Your task to perform on an android device: Turn off the flashlight Image 0: 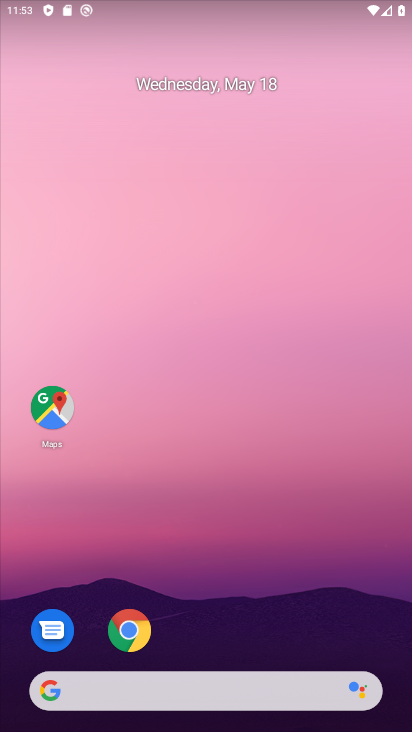
Step 0: drag from (195, 647) to (224, 239)
Your task to perform on an android device: Turn off the flashlight Image 1: 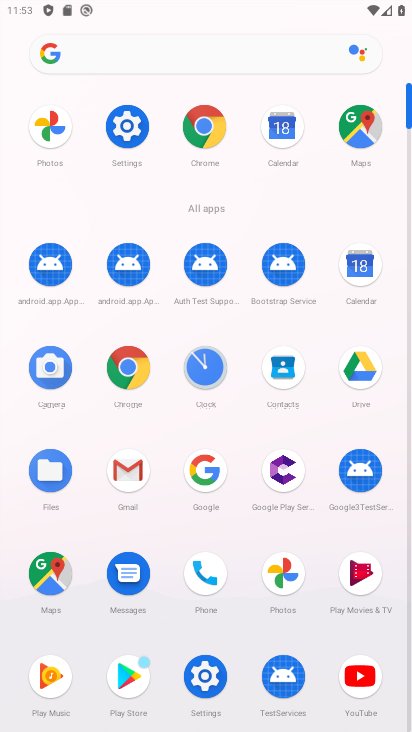
Step 1: click (128, 128)
Your task to perform on an android device: Turn off the flashlight Image 2: 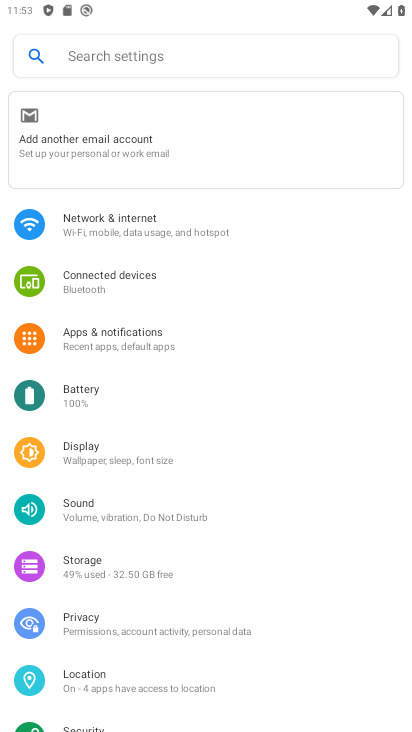
Step 2: click (117, 58)
Your task to perform on an android device: Turn off the flashlight Image 3: 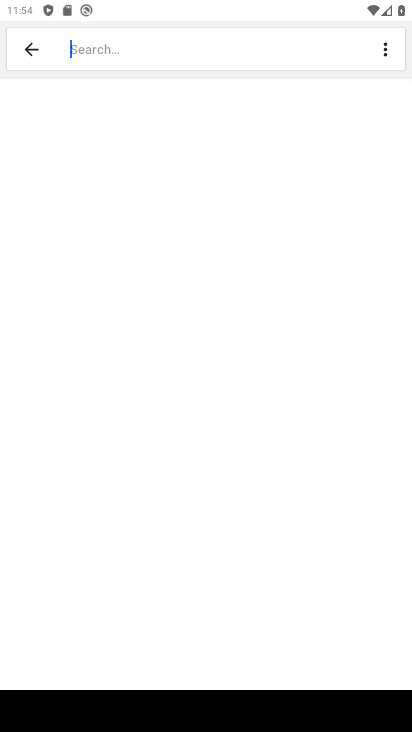
Step 3: type "flashlight"
Your task to perform on an android device: Turn off the flashlight Image 4: 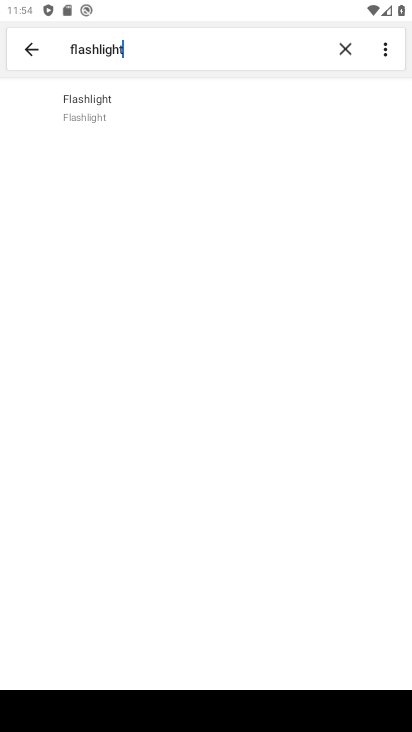
Step 4: click (135, 124)
Your task to perform on an android device: Turn off the flashlight Image 5: 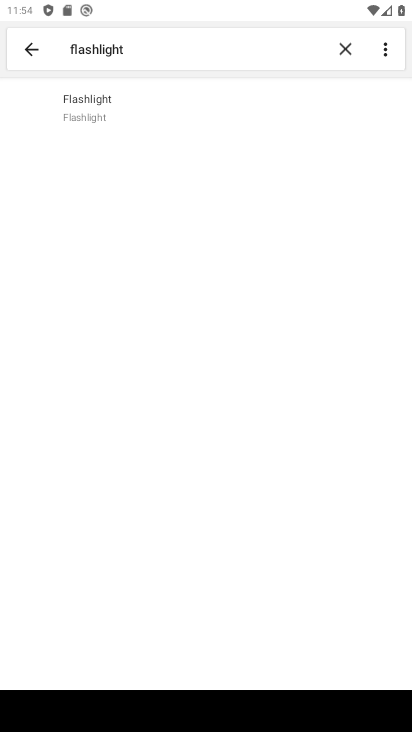
Step 5: task complete